Your task to perform on an android device: check data usage Image 0: 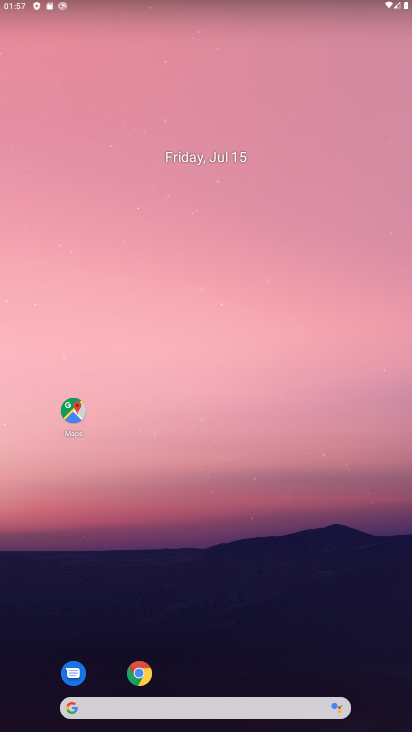
Step 0: drag from (280, 628) to (240, 150)
Your task to perform on an android device: check data usage Image 1: 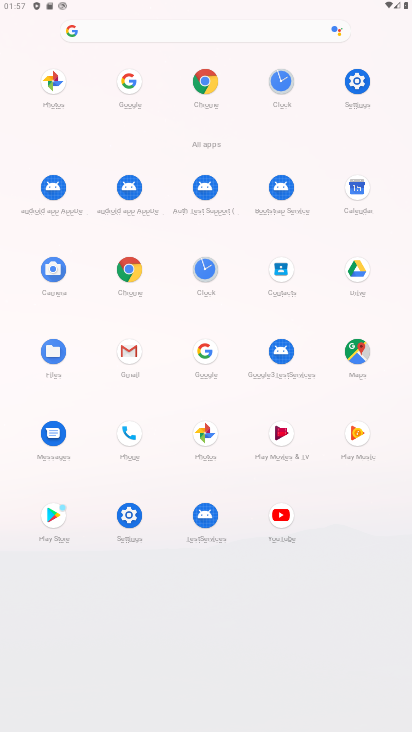
Step 1: click (355, 71)
Your task to perform on an android device: check data usage Image 2: 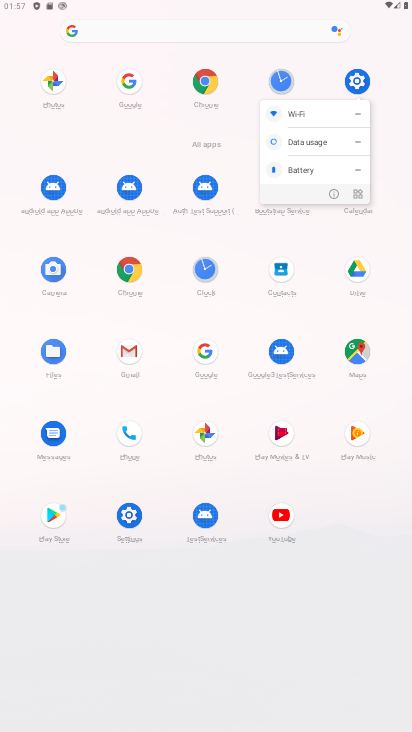
Step 2: click (357, 69)
Your task to perform on an android device: check data usage Image 3: 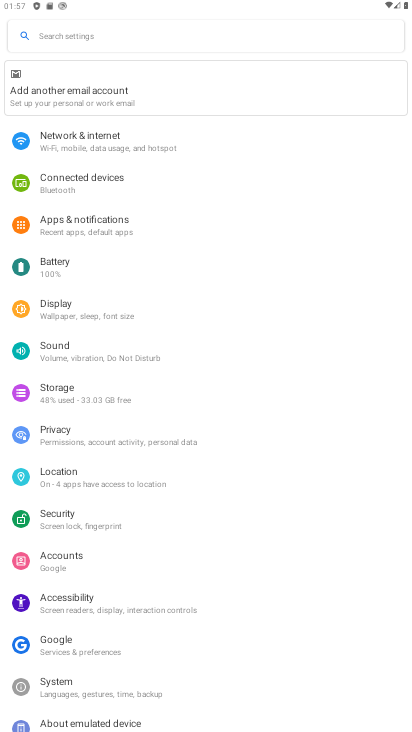
Step 3: click (65, 134)
Your task to perform on an android device: check data usage Image 4: 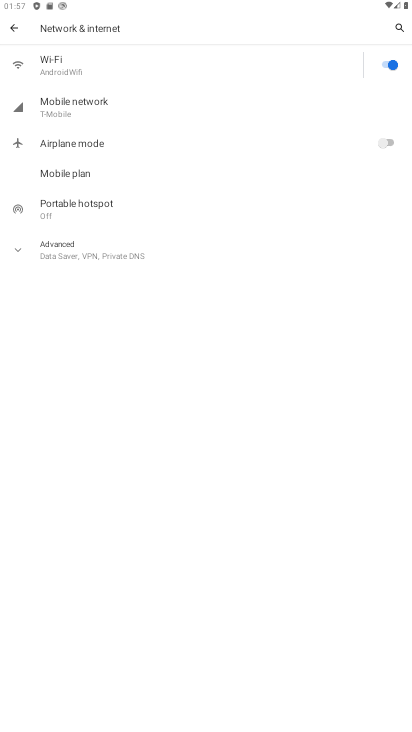
Step 4: click (98, 103)
Your task to perform on an android device: check data usage Image 5: 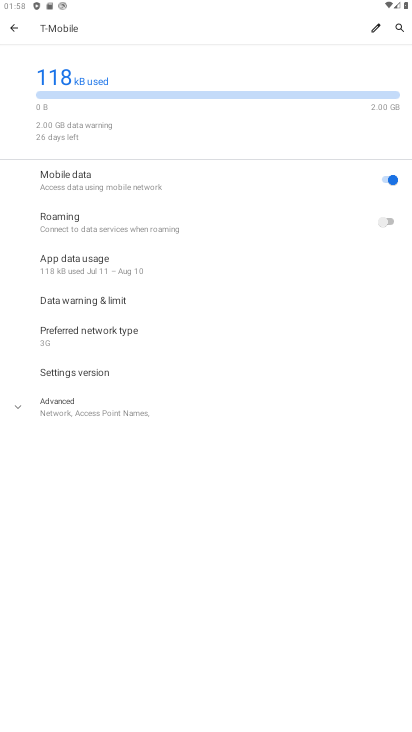
Step 5: task complete